Your task to perform on an android device: Check the settings for the Google Maps app Image 0: 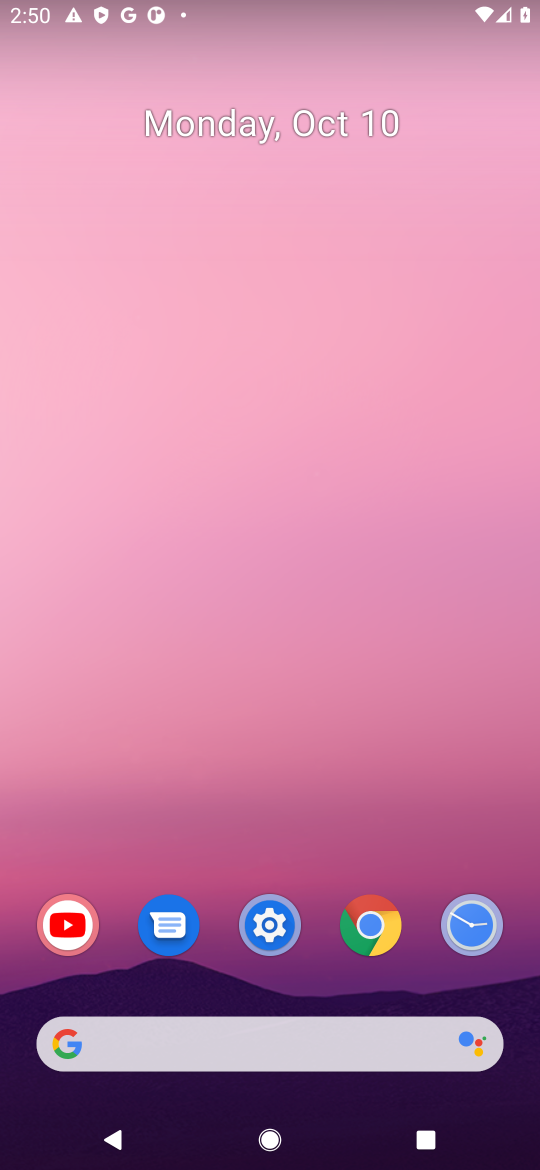
Step 0: drag from (251, 1052) to (97, 137)
Your task to perform on an android device: Check the settings for the Google Maps app Image 1: 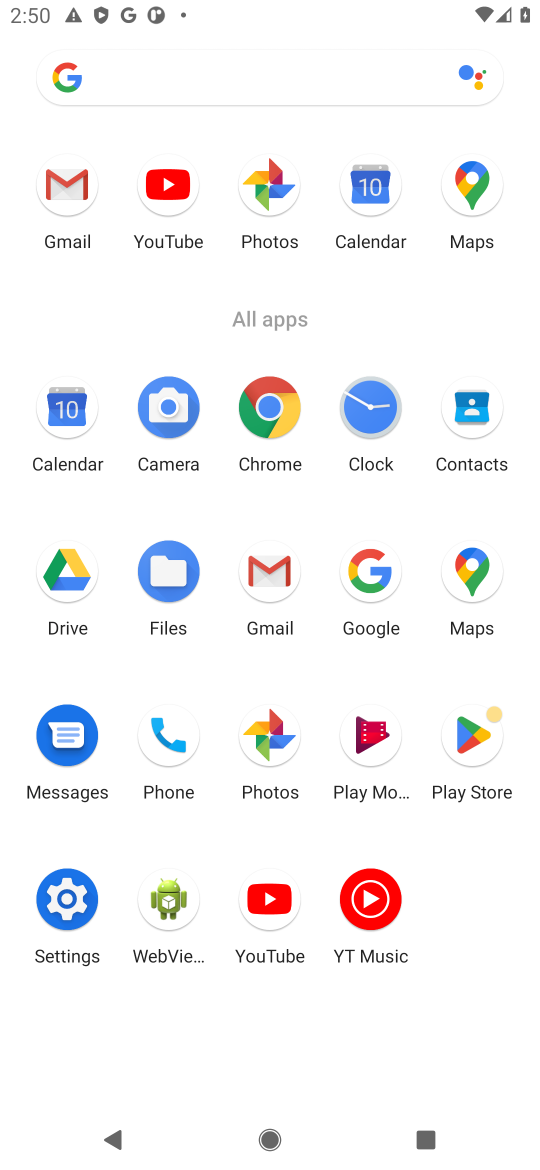
Step 1: click (490, 571)
Your task to perform on an android device: Check the settings for the Google Maps app Image 2: 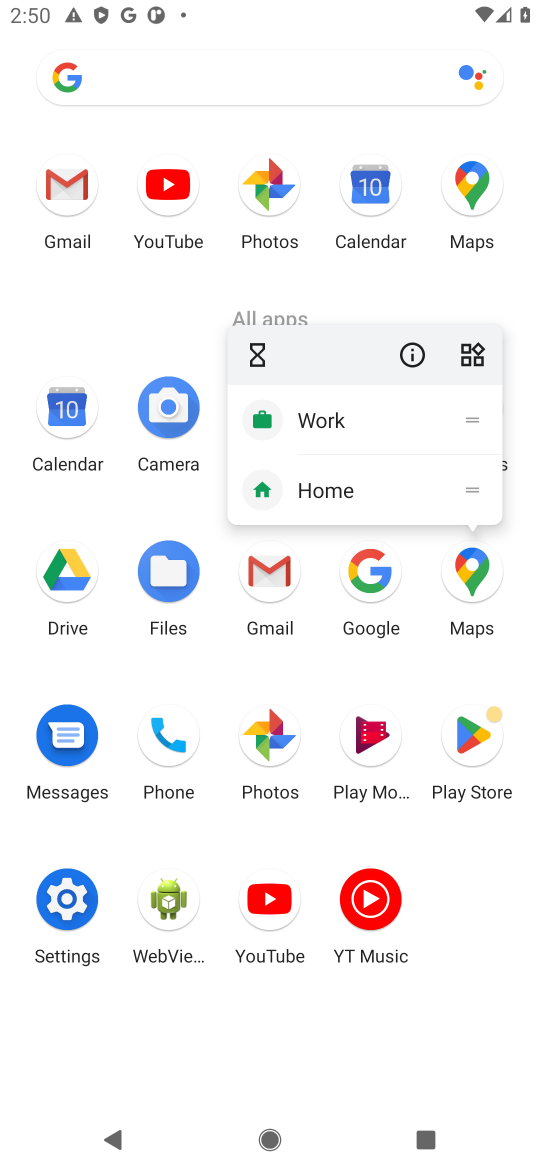
Step 2: click (464, 571)
Your task to perform on an android device: Check the settings for the Google Maps app Image 3: 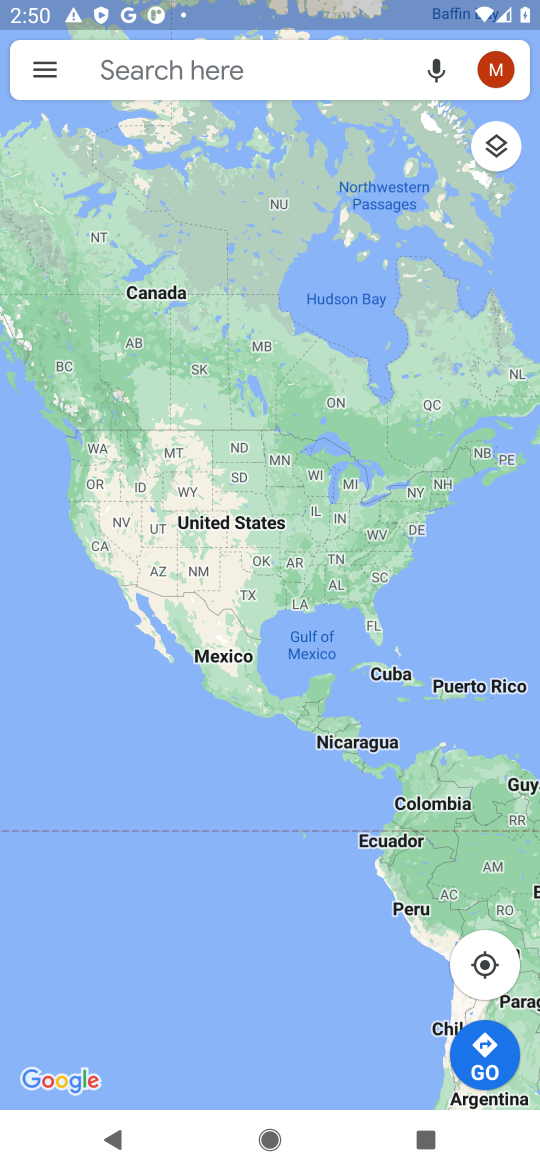
Step 3: click (38, 86)
Your task to perform on an android device: Check the settings for the Google Maps app Image 4: 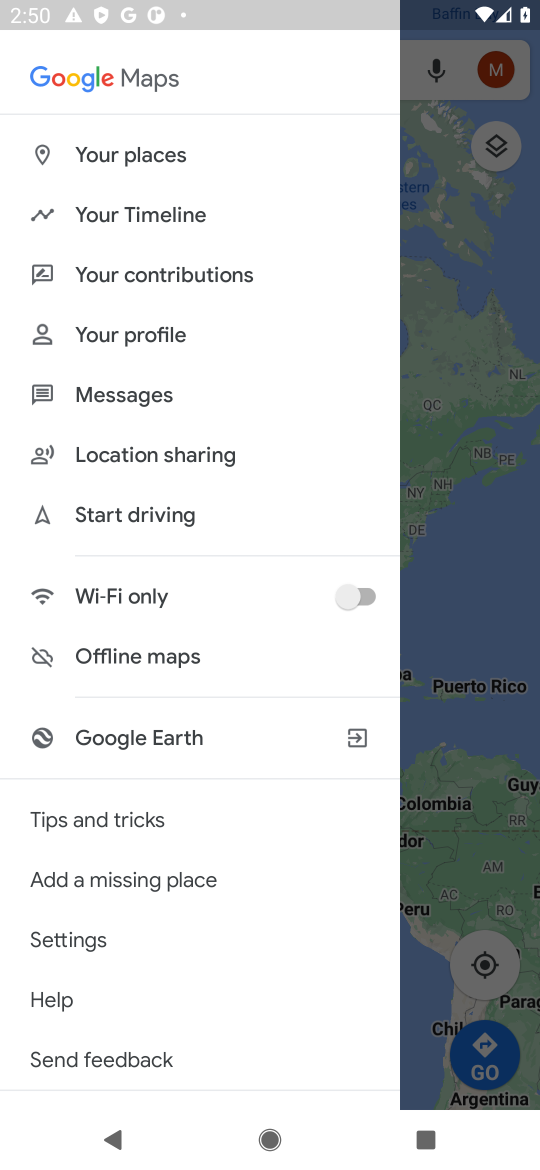
Step 4: click (77, 928)
Your task to perform on an android device: Check the settings for the Google Maps app Image 5: 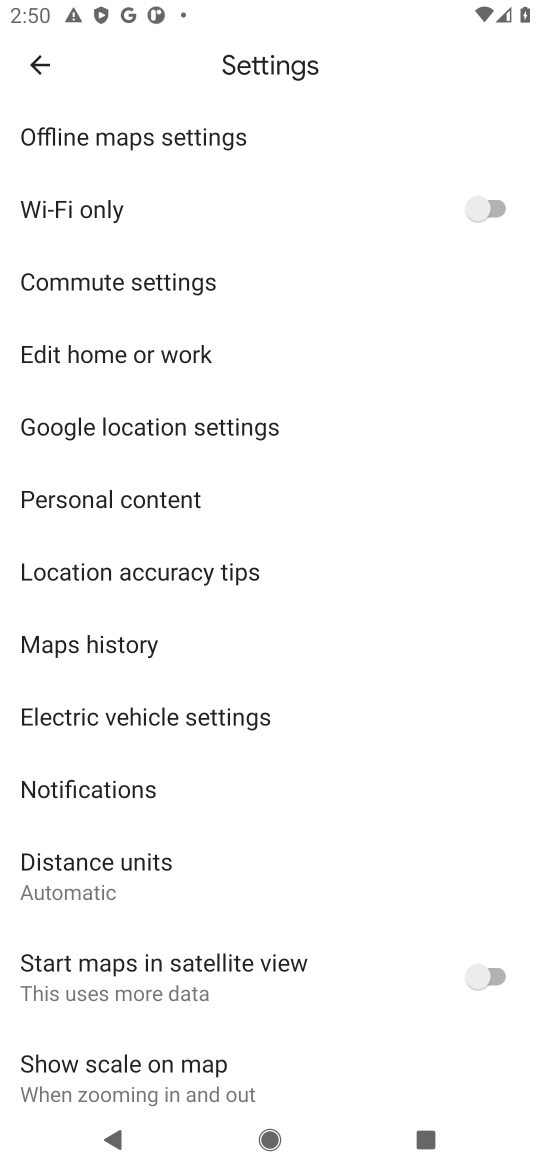
Step 5: task complete